Your task to perform on an android device: toggle priority inbox in the gmail app Image 0: 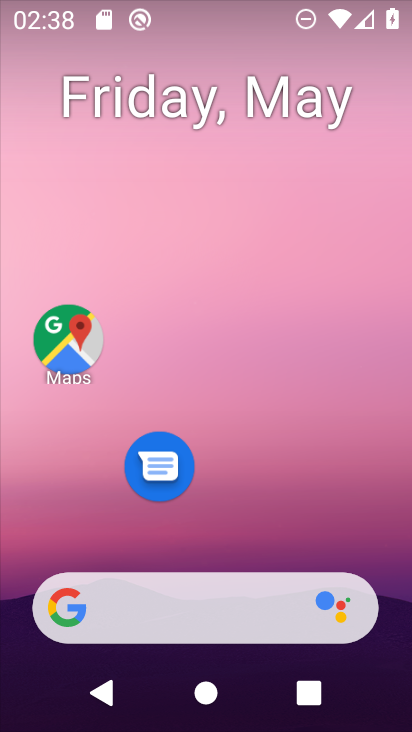
Step 0: drag from (358, 502) to (280, 84)
Your task to perform on an android device: toggle priority inbox in the gmail app Image 1: 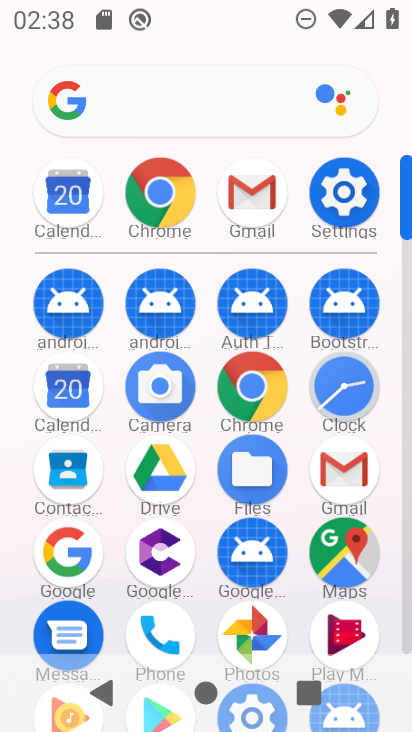
Step 1: click (263, 182)
Your task to perform on an android device: toggle priority inbox in the gmail app Image 2: 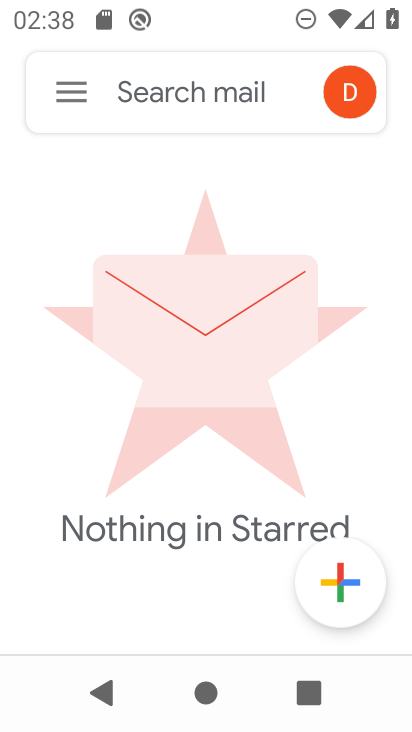
Step 2: click (70, 77)
Your task to perform on an android device: toggle priority inbox in the gmail app Image 3: 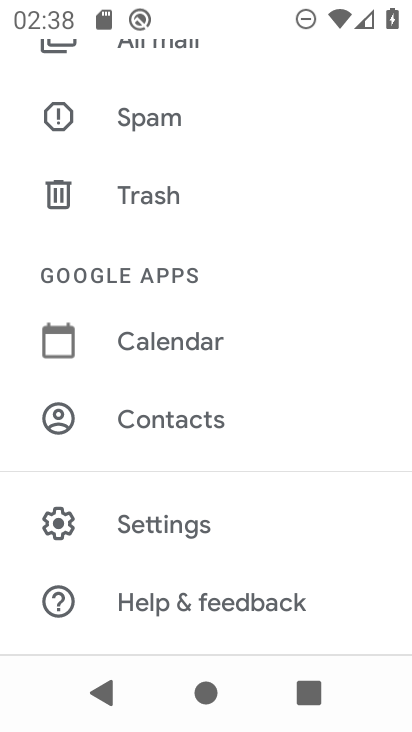
Step 3: click (120, 518)
Your task to perform on an android device: toggle priority inbox in the gmail app Image 4: 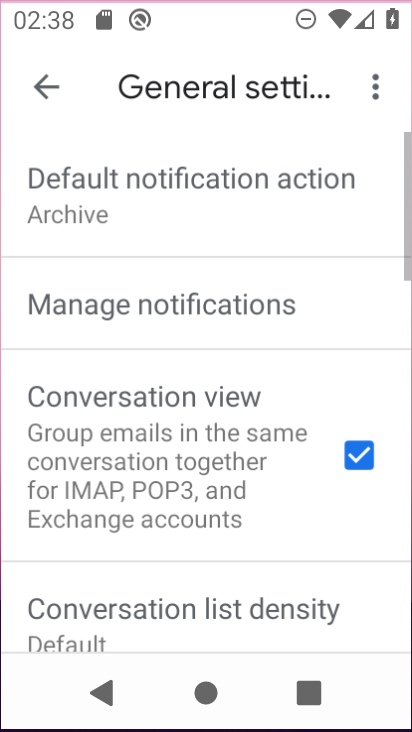
Step 4: task complete